Your task to perform on an android device: toggle data saver in the chrome app Image 0: 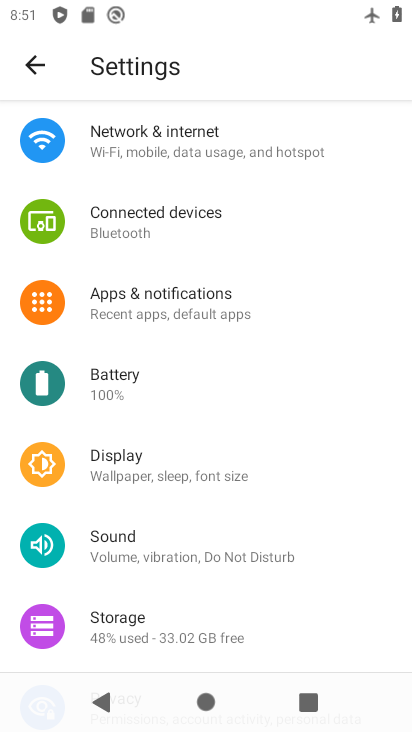
Step 0: press home button
Your task to perform on an android device: toggle data saver in the chrome app Image 1: 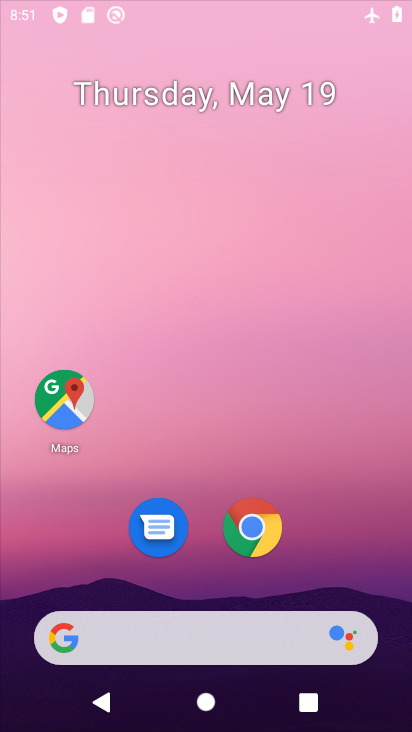
Step 1: drag from (165, 591) to (223, 66)
Your task to perform on an android device: toggle data saver in the chrome app Image 2: 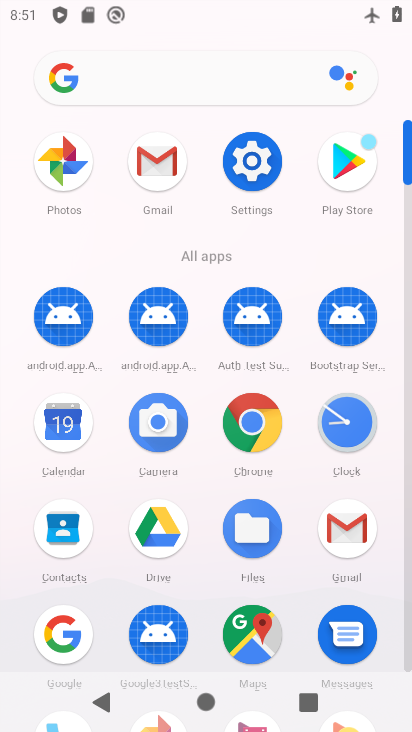
Step 2: click (261, 428)
Your task to perform on an android device: toggle data saver in the chrome app Image 3: 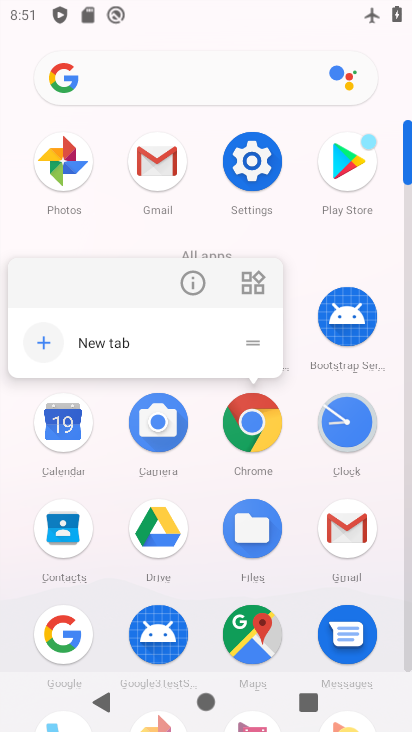
Step 3: click (189, 279)
Your task to perform on an android device: toggle data saver in the chrome app Image 4: 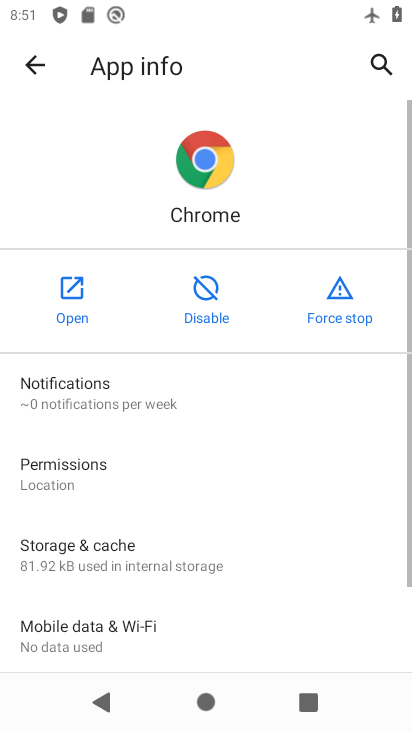
Step 4: click (59, 306)
Your task to perform on an android device: toggle data saver in the chrome app Image 5: 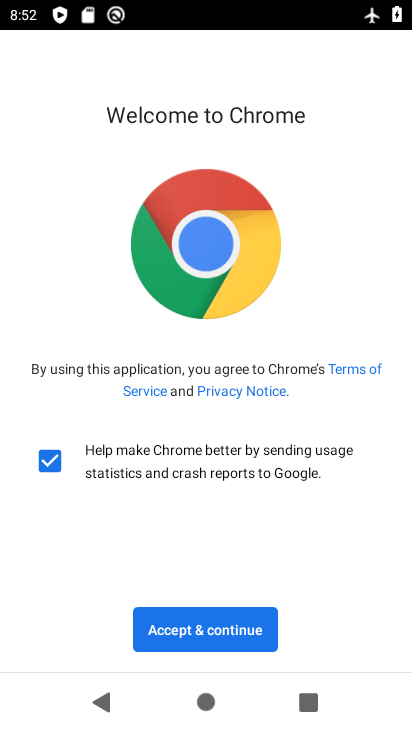
Step 5: click (194, 642)
Your task to perform on an android device: toggle data saver in the chrome app Image 6: 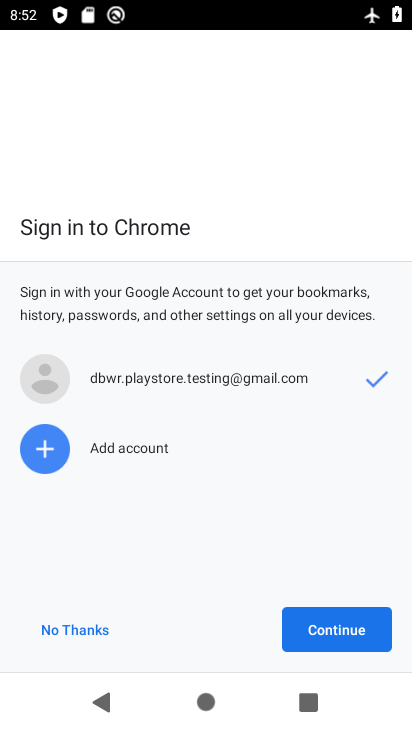
Step 6: click (349, 631)
Your task to perform on an android device: toggle data saver in the chrome app Image 7: 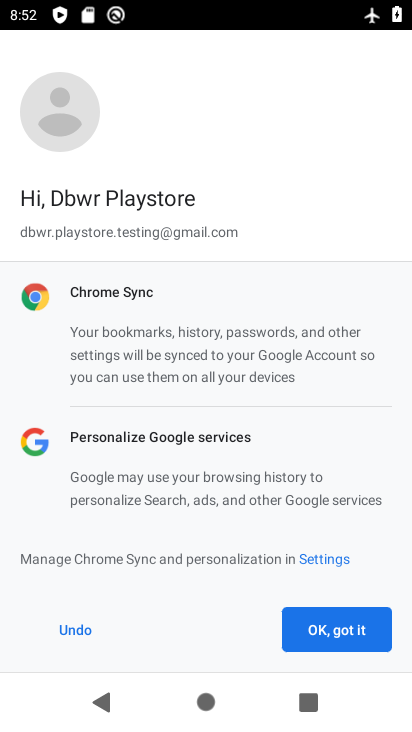
Step 7: click (316, 636)
Your task to perform on an android device: toggle data saver in the chrome app Image 8: 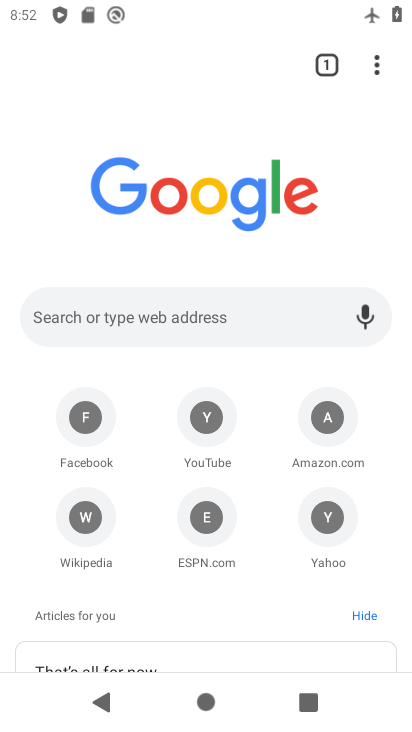
Step 8: drag from (264, 555) to (254, 179)
Your task to perform on an android device: toggle data saver in the chrome app Image 9: 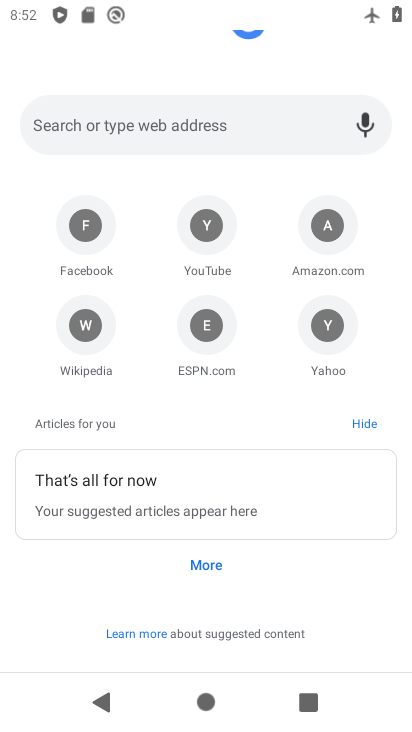
Step 9: drag from (291, 600) to (294, 349)
Your task to perform on an android device: toggle data saver in the chrome app Image 10: 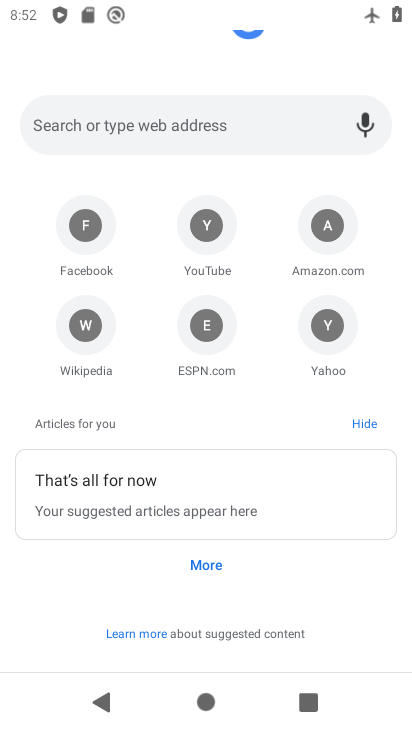
Step 10: drag from (265, 285) to (298, 731)
Your task to perform on an android device: toggle data saver in the chrome app Image 11: 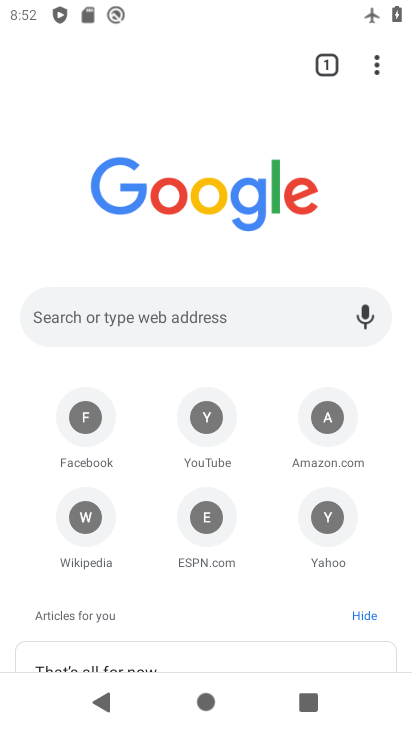
Step 11: click (373, 67)
Your task to perform on an android device: toggle data saver in the chrome app Image 12: 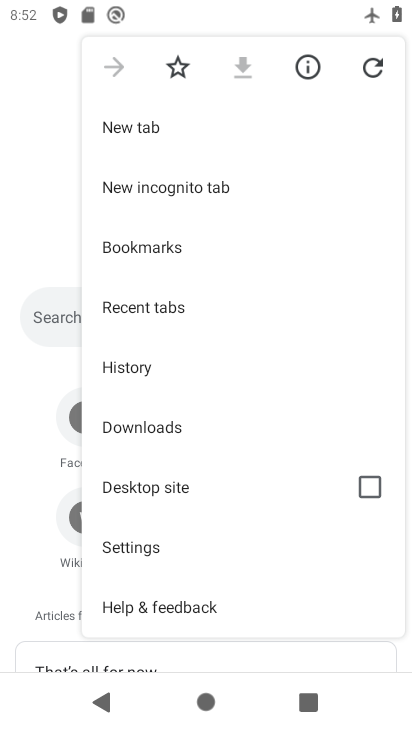
Step 12: drag from (231, 542) to (234, 228)
Your task to perform on an android device: toggle data saver in the chrome app Image 13: 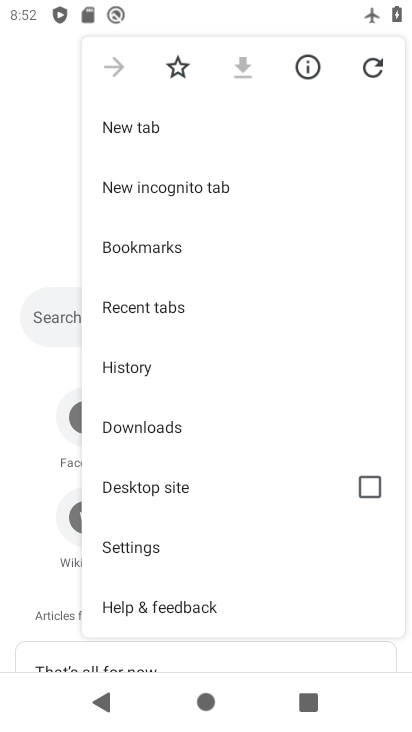
Step 13: click (146, 543)
Your task to perform on an android device: toggle data saver in the chrome app Image 14: 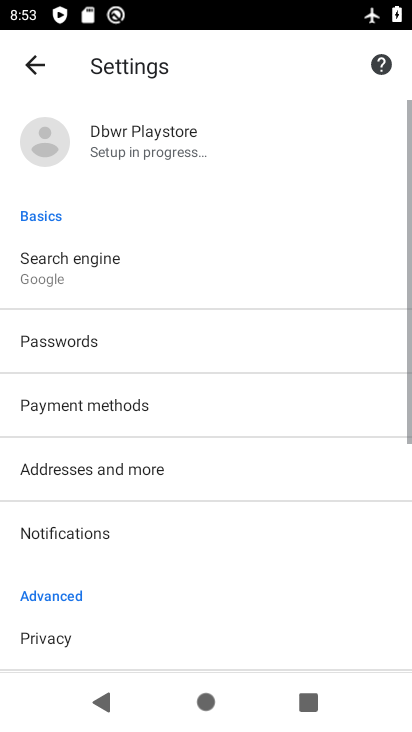
Step 14: drag from (191, 462) to (224, 178)
Your task to perform on an android device: toggle data saver in the chrome app Image 15: 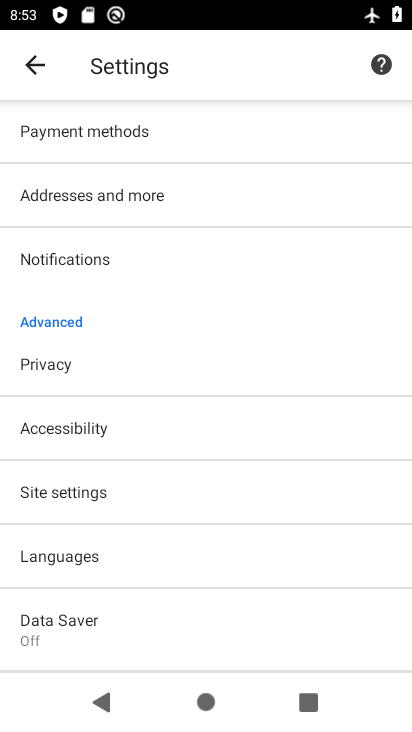
Step 15: click (102, 645)
Your task to perform on an android device: toggle data saver in the chrome app Image 16: 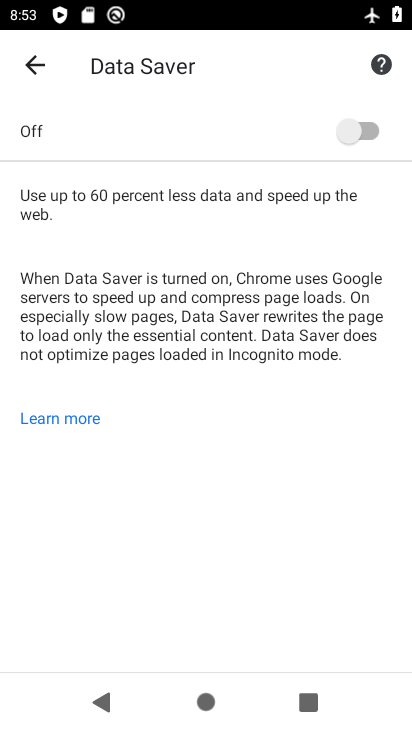
Step 16: click (357, 128)
Your task to perform on an android device: toggle data saver in the chrome app Image 17: 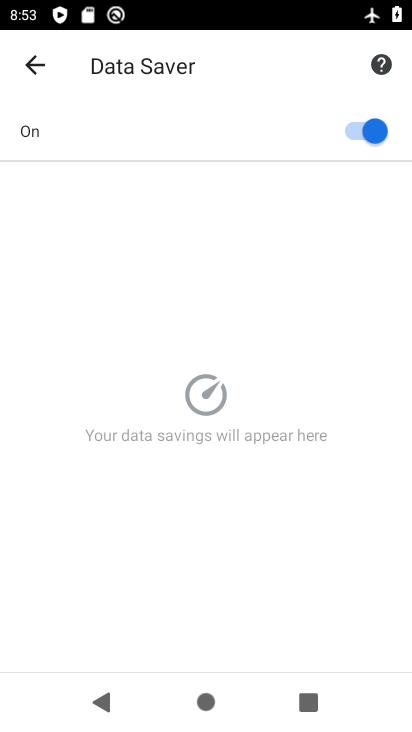
Step 17: task complete